Your task to perform on an android device: change the clock style Image 0: 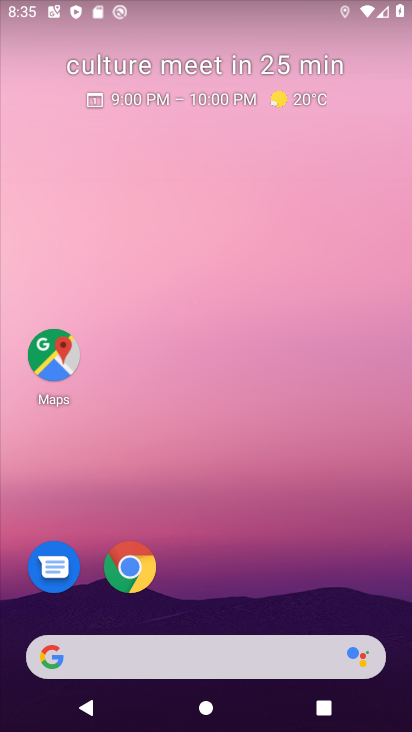
Step 0: drag from (188, 601) to (232, 23)
Your task to perform on an android device: change the clock style Image 1: 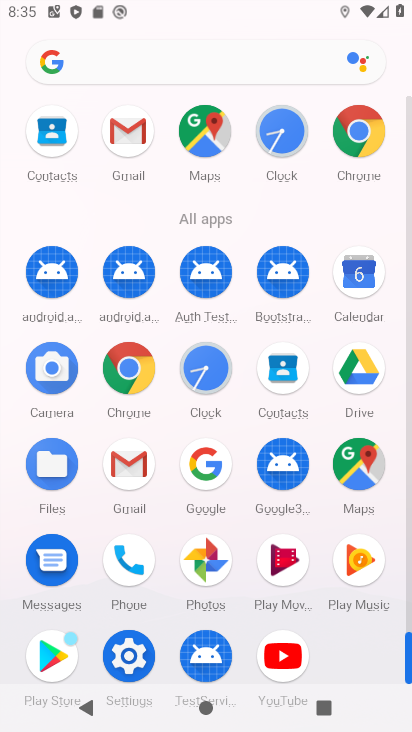
Step 1: click (282, 123)
Your task to perform on an android device: change the clock style Image 2: 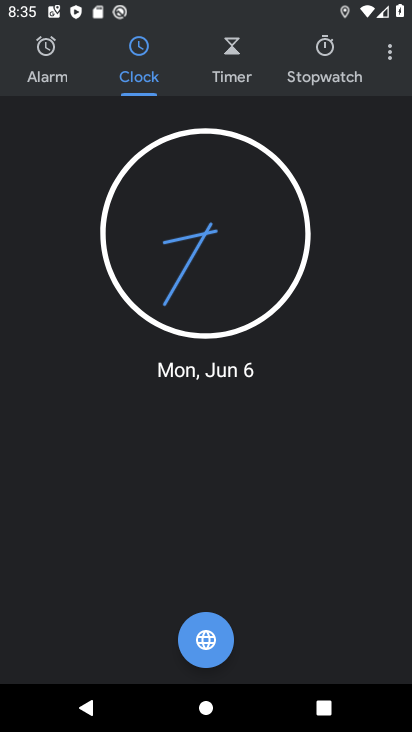
Step 2: click (394, 45)
Your task to perform on an android device: change the clock style Image 3: 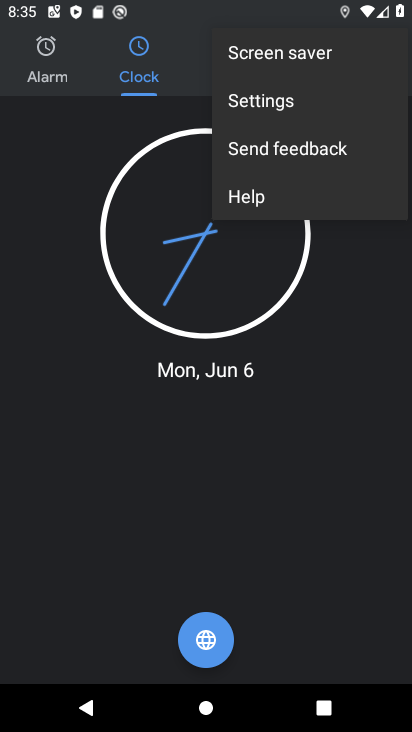
Step 3: click (255, 96)
Your task to perform on an android device: change the clock style Image 4: 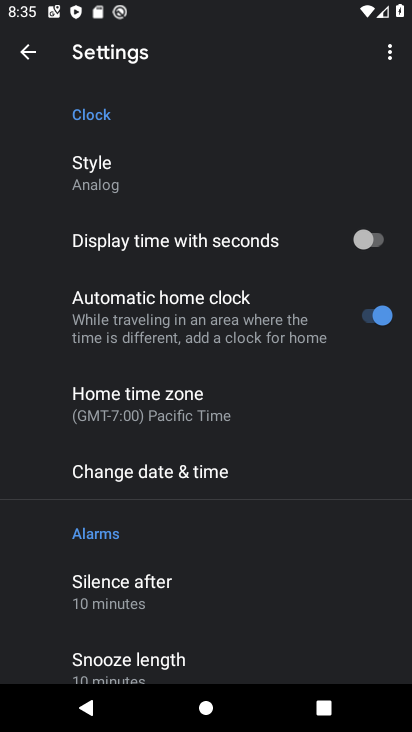
Step 4: click (138, 185)
Your task to perform on an android device: change the clock style Image 5: 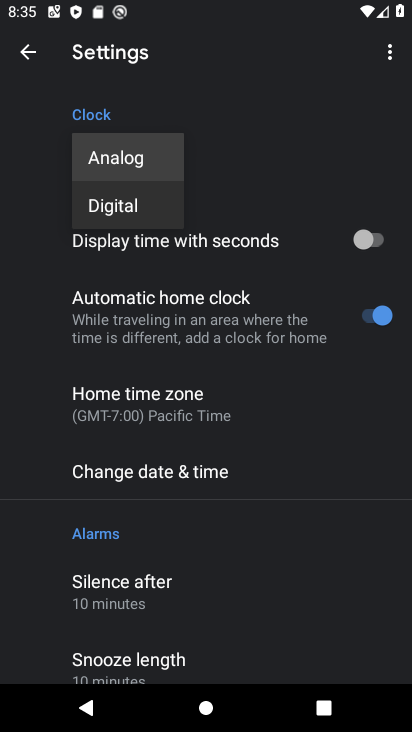
Step 5: click (114, 199)
Your task to perform on an android device: change the clock style Image 6: 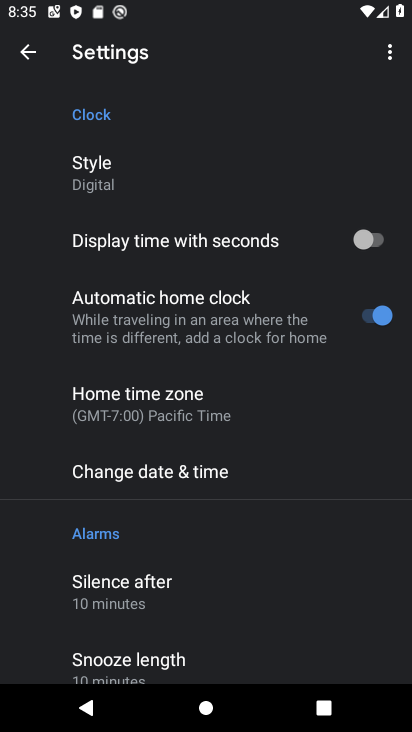
Step 6: task complete